Your task to perform on an android device: Do I have any events this weekend? Image 0: 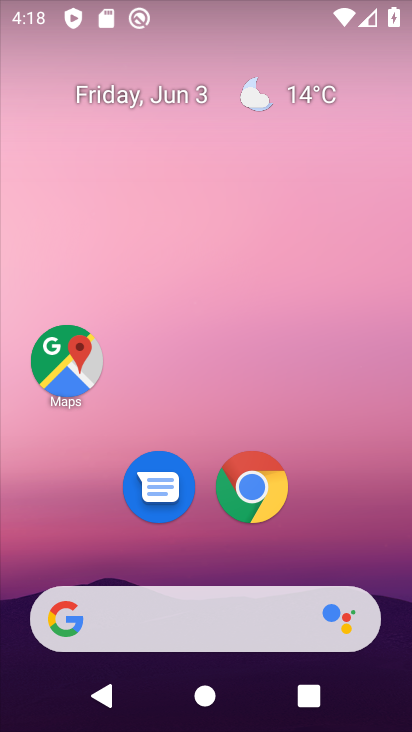
Step 0: drag from (178, 587) to (261, 40)
Your task to perform on an android device: Do I have any events this weekend? Image 1: 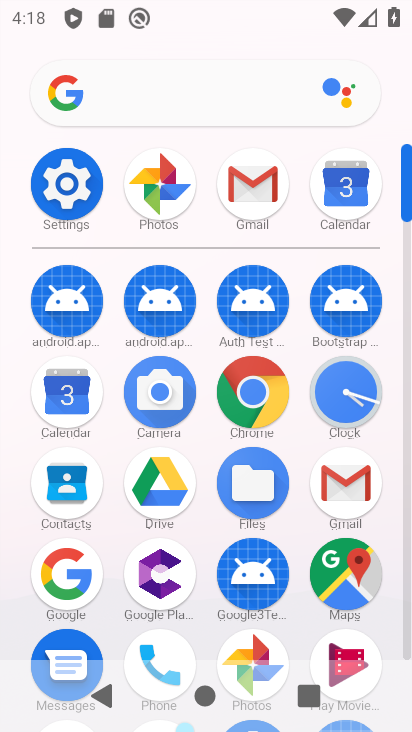
Step 1: click (64, 384)
Your task to perform on an android device: Do I have any events this weekend? Image 2: 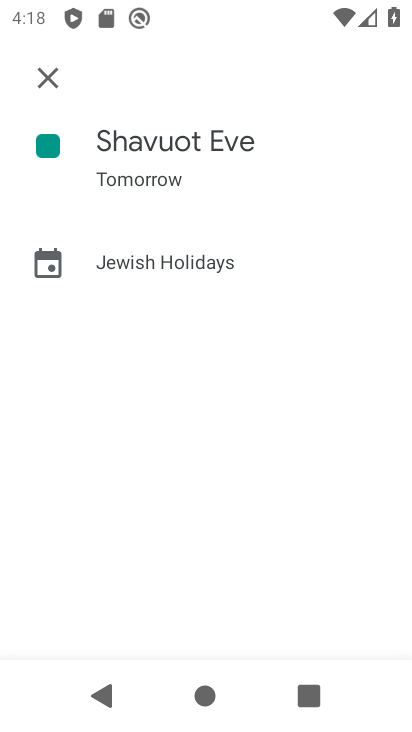
Step 2: click (73, 78)
Your task to perform on an android device: Do I have any events this weekend? Image 3: 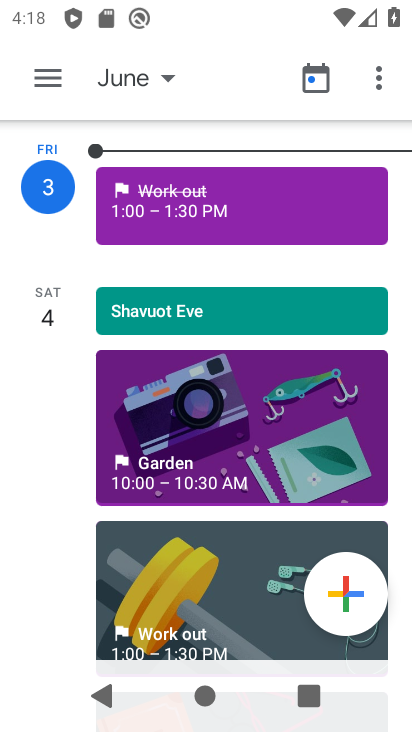
Step 3: drag from (203, 595) to (264, 191)
Your task to perform on an android device: Do I have any events this weekend? Image 4: 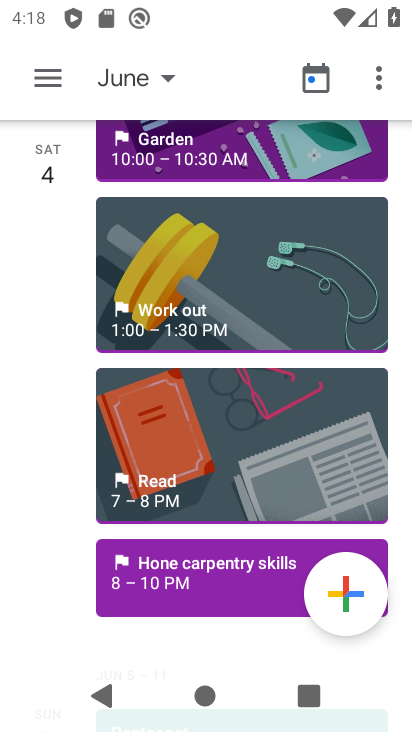
Step 4: drag from (209, 263) to (185, 586)
Your task to perform on an android device: Do I have any events this weekend? Image 5: 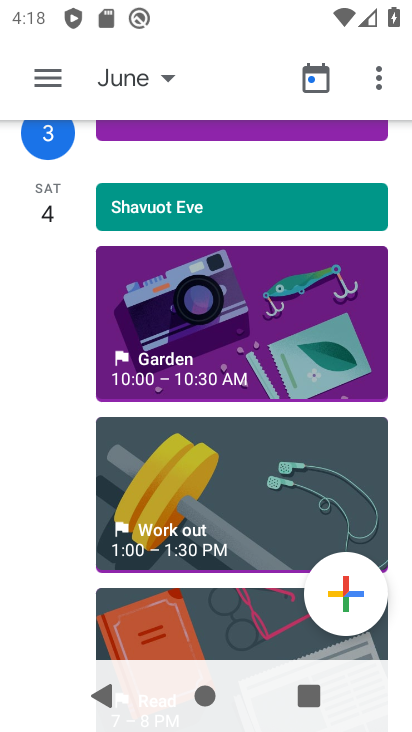
Step 5: click (169, 209)
Your task to perform on an android device: Do I have any events this weekend? Image 6: 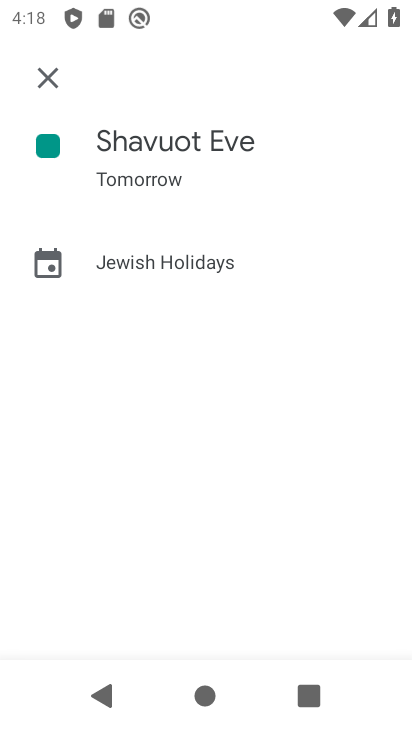
Step 6: task complete